Your task to perform on an android device: Open the stopwatch Image 0: 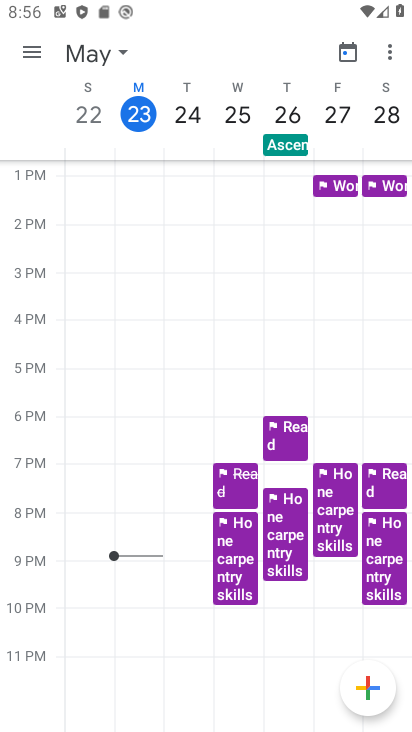
Step 0: press home button
Your task to perform on an android device: Open the stopwatch Image 1: 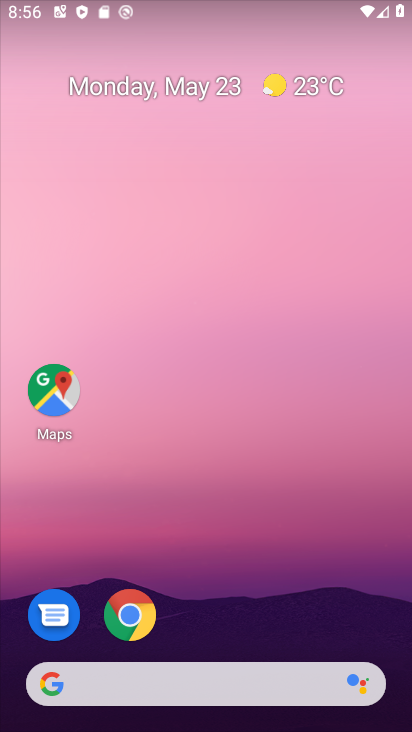
Step 1: drag from (259, 553) to (194, 137)
Your task to perform on an android device: Open the stopwatch Image 2: 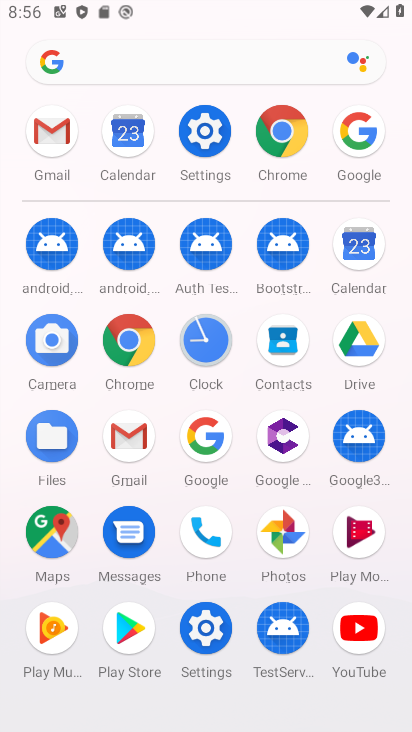
Step 2: click (207, 339)
Your task to perform on an android device: Open the stopwatch Image 3: 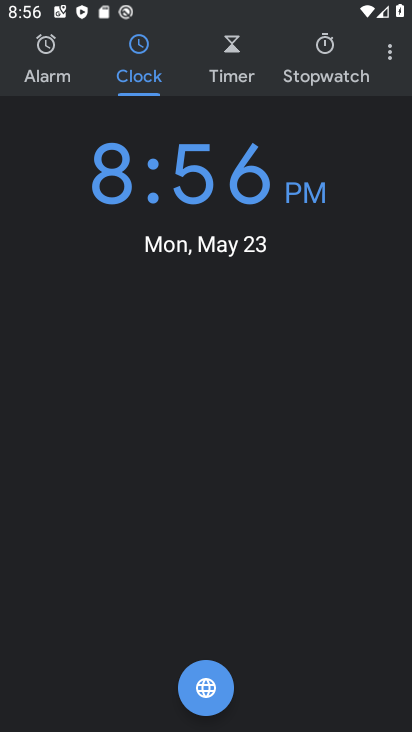
Step 3: click (327, 47)
Your task to perform on an android device: Open the stopwatch Image 4: 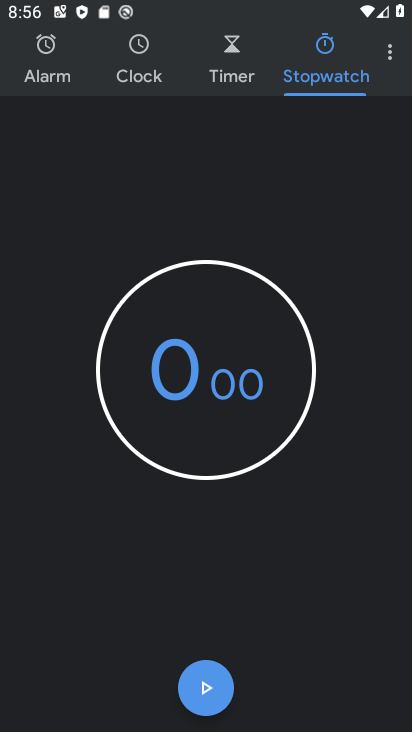
Step 4: task complete